Your task to perform on an android device: Open the map Image 0: 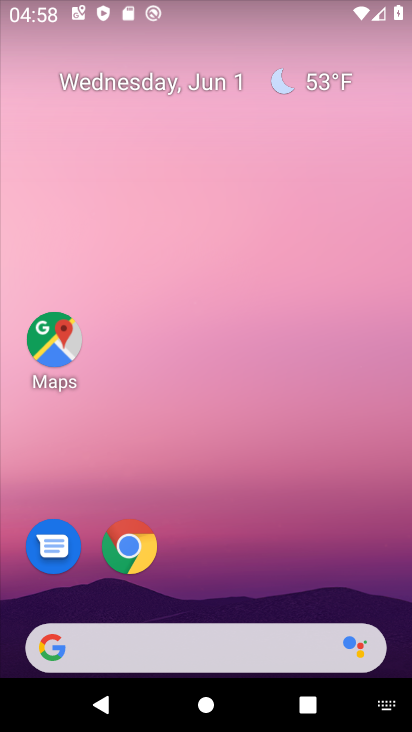
Step 0: click (44, 332)
Your task to perform on an android device: Open the map Image 1: 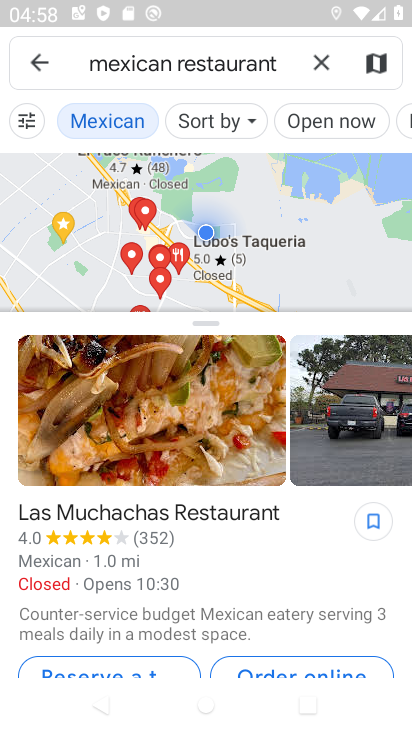
Step 1: task complete